Your task to perform on an android device: toggle priority inbox in the gmail app Image 0: 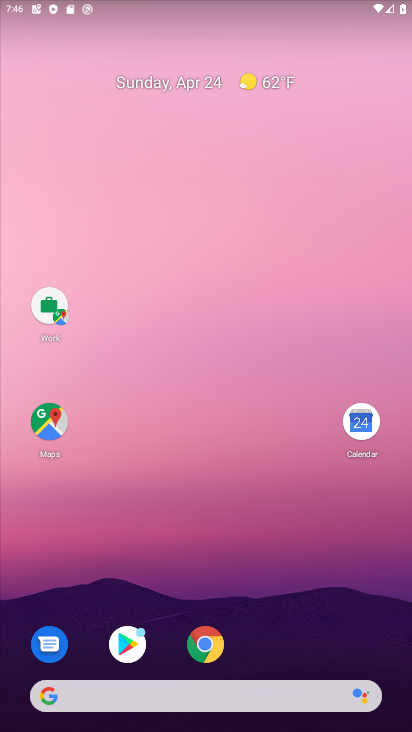
Step 0: drag from (257, 474) to (104, 4)
Your task to perform on an android device: toggle priority inbox in the gmail app Image 1: 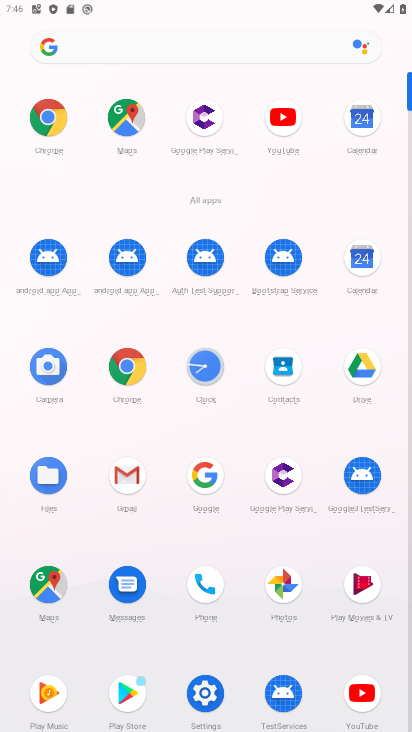
Step 1: click (115, 484)
Your task to perform on an android device: toggle priority inbox in the gmail app Image 2: 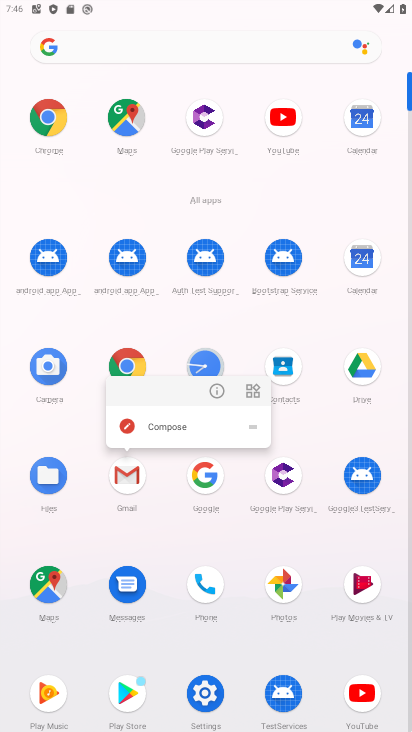
Step 2: click (128, 481)
Your task to perform on an android device: toggle priority inbox in the gmail app Image 3: 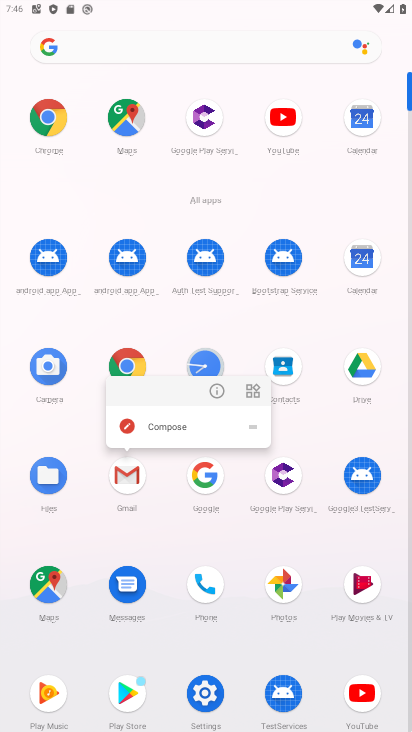
Step 3: click (124, 482)
Your task to perform on an android device: toggle priority inbox in the gmail app Image 4: 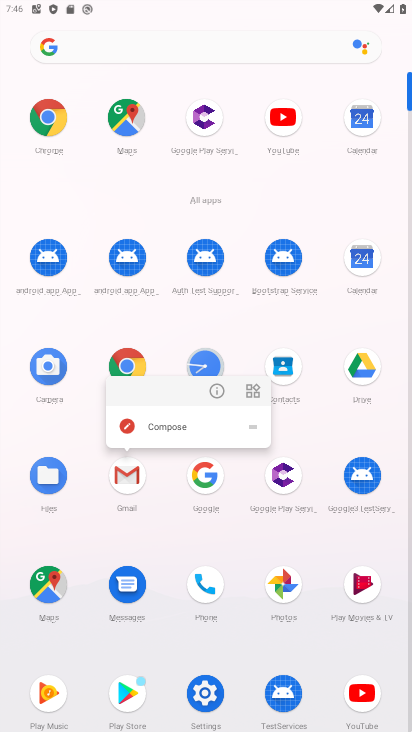
Step 4: click (123, 483)
Your task to perform on an android device: toggle priority inbox in the gmail app Image 5: 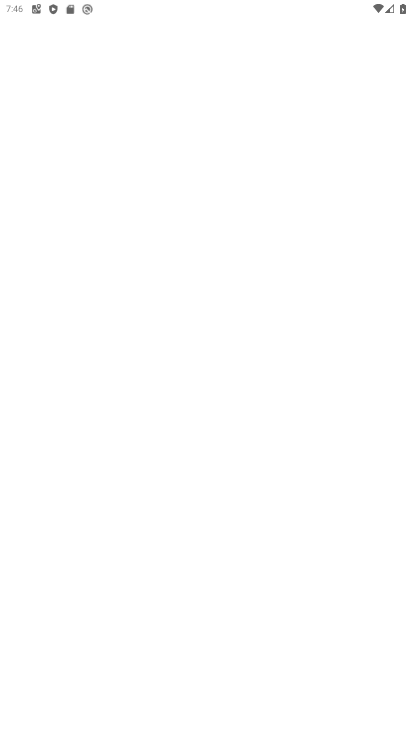
Step 5: click (124, 483)
Your task to perform on an android device: toggle priority inbox in the gmail app Image 6: 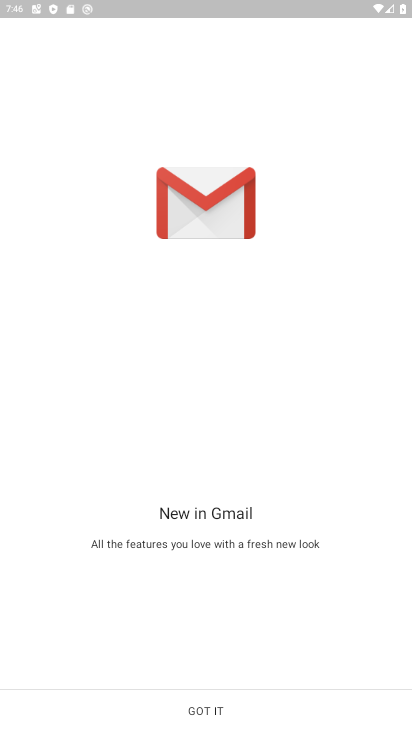
Step 6: click (210, 701)
Your task to perform on an android device: toggle priority inbox in the gmail app Image 7: 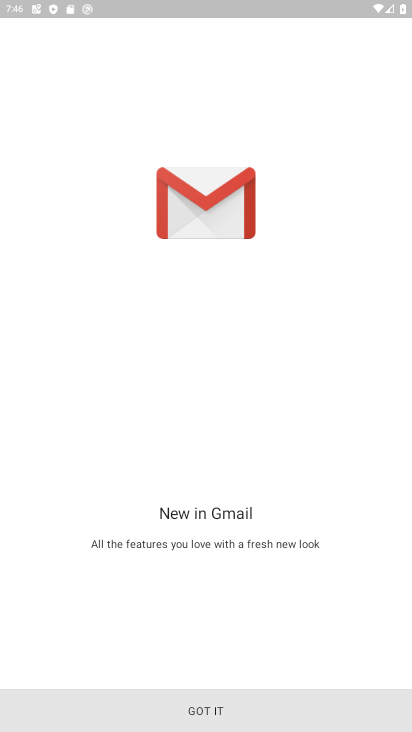
Step 7: click (208, 701)
Your task to perform on an android device: toggle priority inbox in the gmail app Image 8: 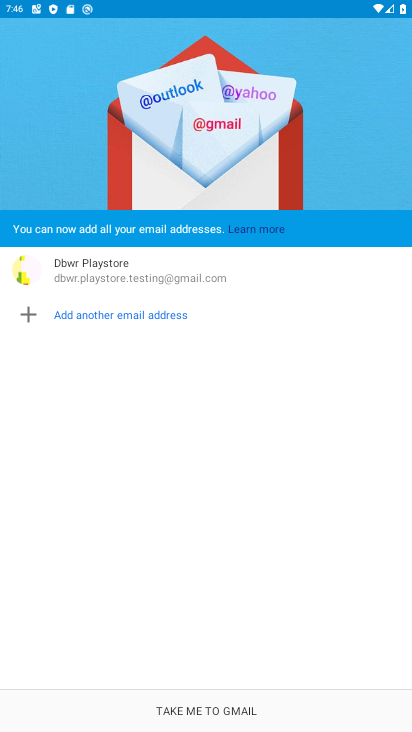
Step 8: click (213, 705)
Your task to perform on an android device: toggle priority inbox in the gmail app Image 9: 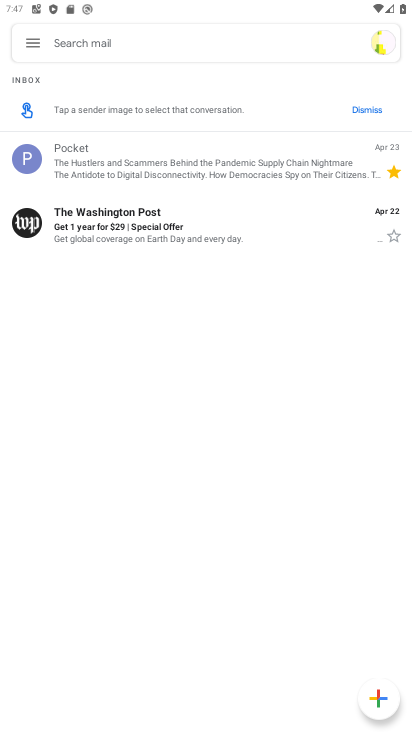
Step 9: click (40, 42)
Your task to perform on an android device: toggle priority inbox in the gmail app Image 10: 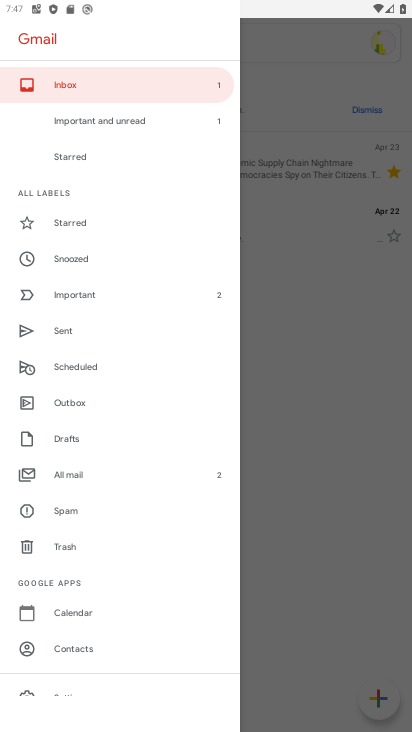
Step 10: drag from (97, 627) to (106, 219)
Your task to perform on an android device: toggle priority inbox in the gmail app Image 11: 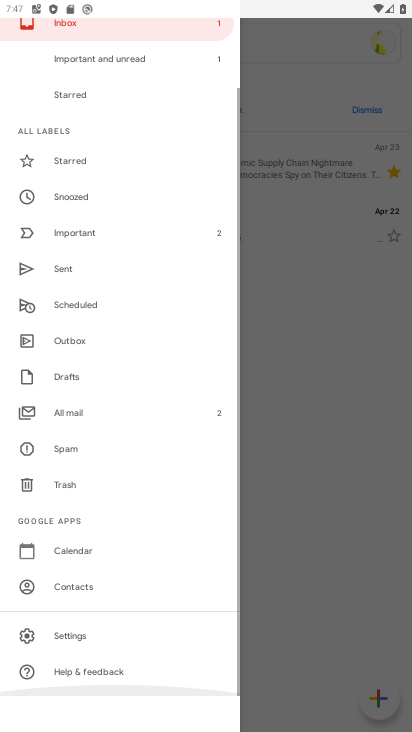
Step 11: drag from (122, 465) to (77, 131)
Your task to perform on an android device: toggle priority inbox in the gmail app Image 12: 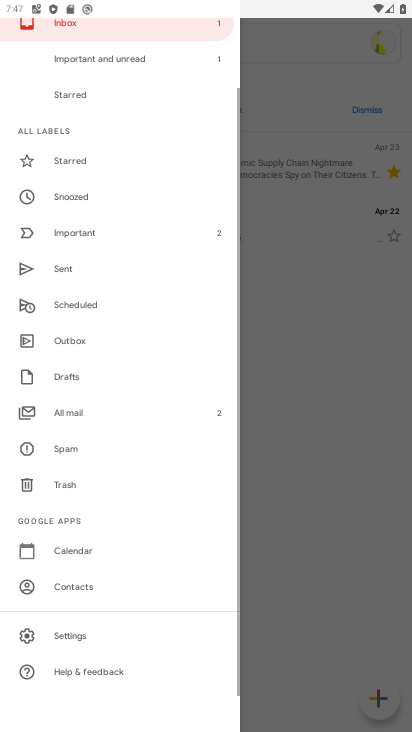
Step 12: click (77, 631)
Your task to perform on an android device: toggle priority inbox in the gmail app Image 13: 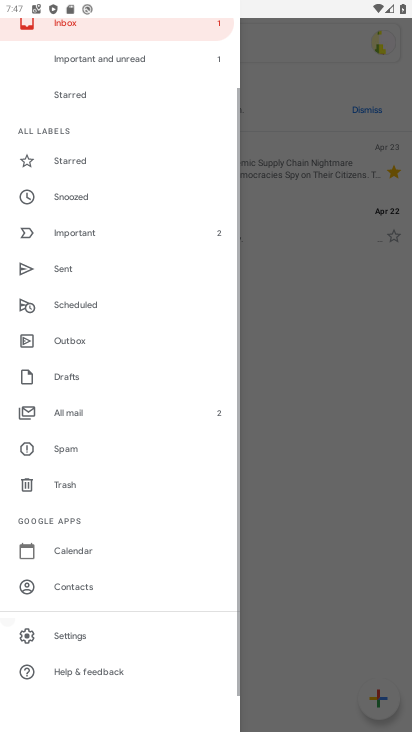
Step 13: click (77, 631)
Your task to perform on an android device: toggle priority inbox in the gmail app Image 14: 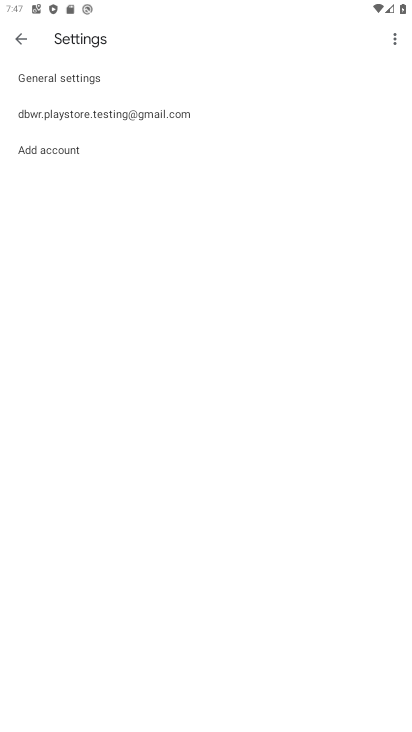
Step 14: click (66, 112)
Your task to perform on an android device: toggle priority inbox in the gmail app Image 15: 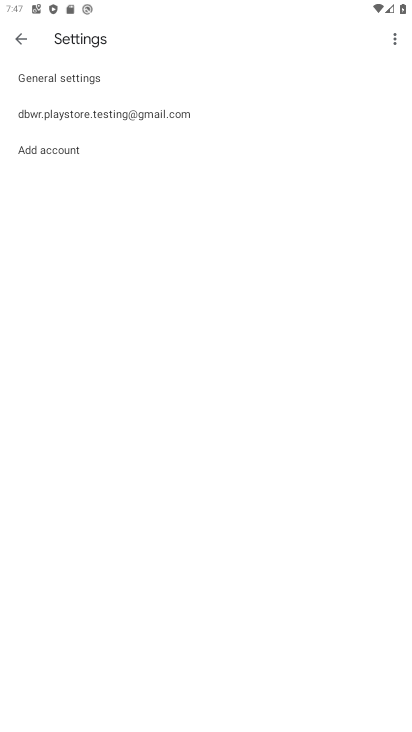
Step 15: click (86, 111)
Your task to perform on an android device: toggle priority inbox in the gmail app Image 16: 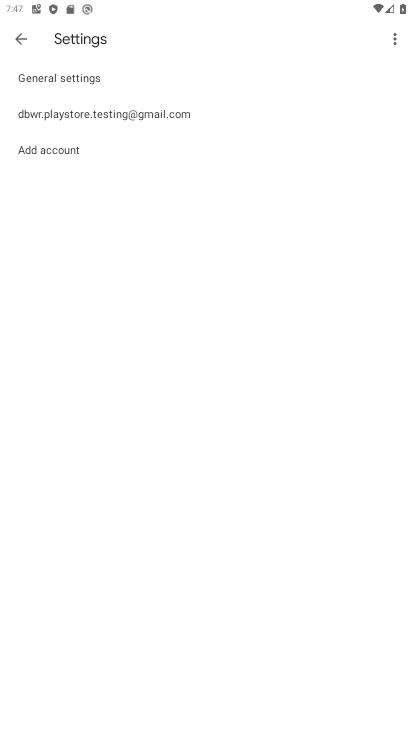
Step 16: click (82, 115)
Your task to perform on an android device: toggle priority inbox in the gmail app Image 17: 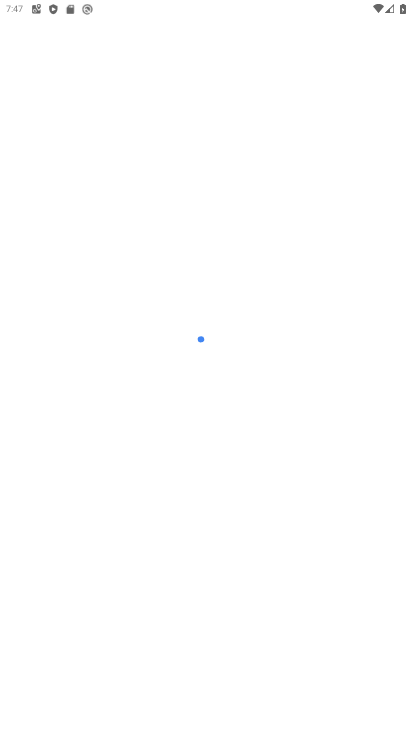
Step 17: press back button
Your task to perform on an android device: toggle priority inbox in the gmail app Image 18: 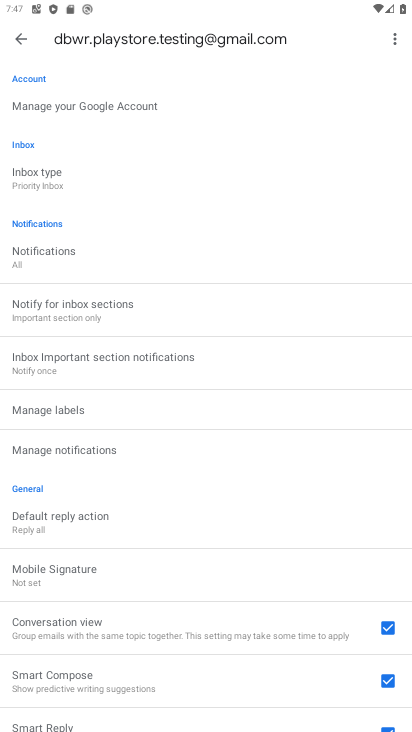
Step 18: click (28, 169)
Your task to perform on an android device: toggle priority inbox in the gmail app Image 19: 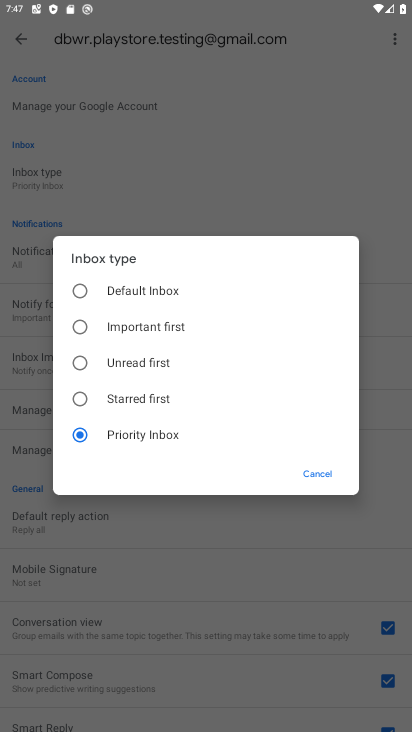
Step 19: click (78, 403)
Your task to perform on an android device: toggle priority inbox in the gmail app Image 20: 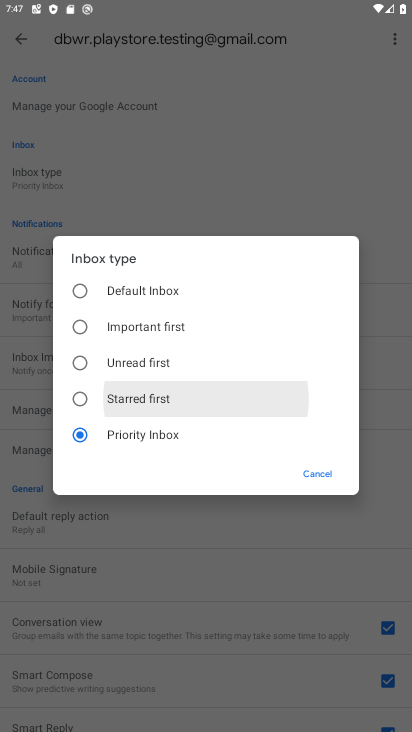
Step 20: click (79, 401)
Your task to perform on an android device: toggle priority inbox in the gmail app Image 21: 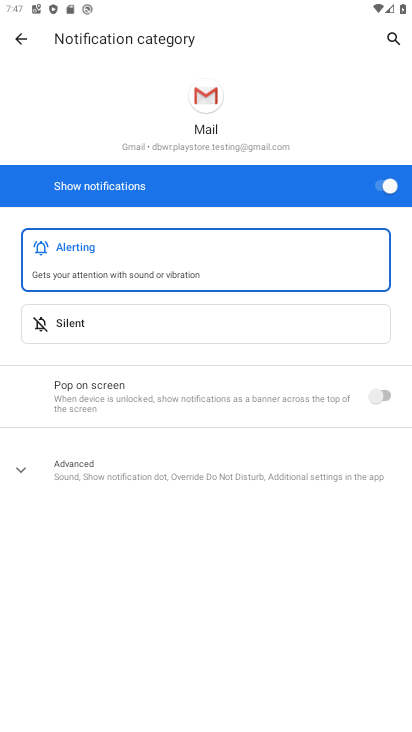
Step 21: click (21, 33)
Your task to perform on an android device: toggle priority inbox in the gmail app Image 22: 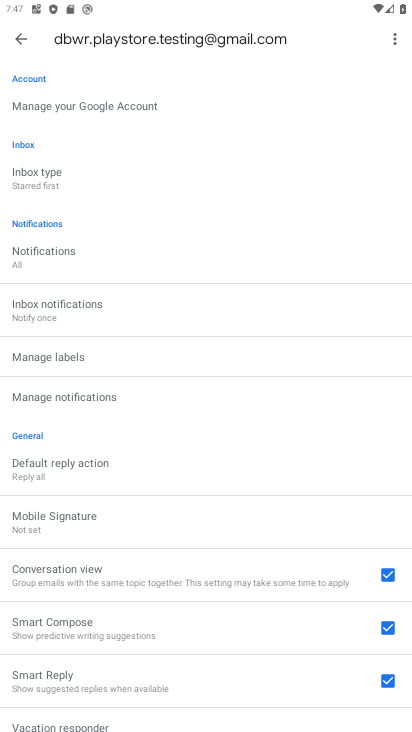
Step 22: task complete